Your task to perform on an android device: Go to Reddit.com Image 0: 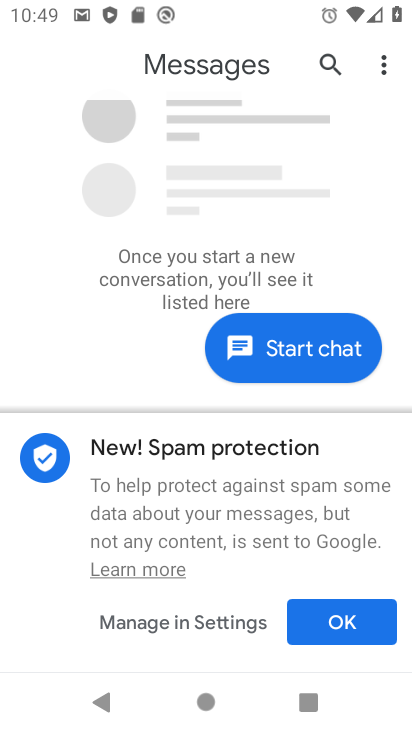
Step 0: press home button
Your task to perform on an android device: Go to Reddit.com Image 1: 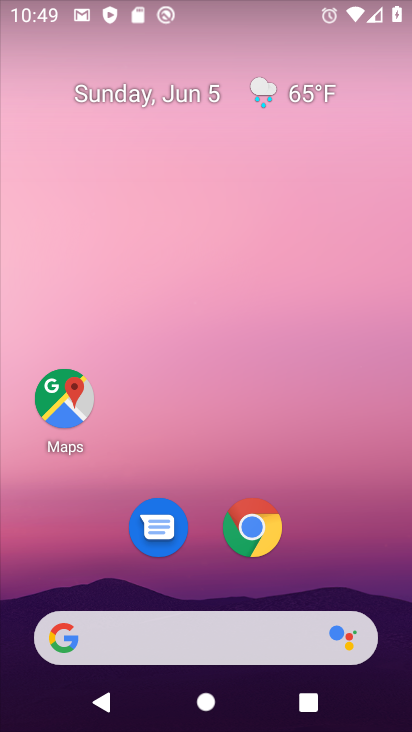
Step 1: click (193, 636)
Your task to perform on an android device: Go to Reddit.com Image 2: 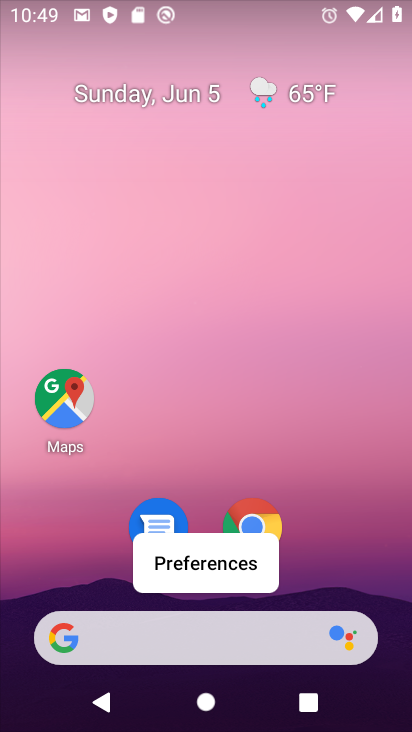
Step 2: click (144, 641)
Your task to perform on an android device: Go to Reddit.com Image 3: 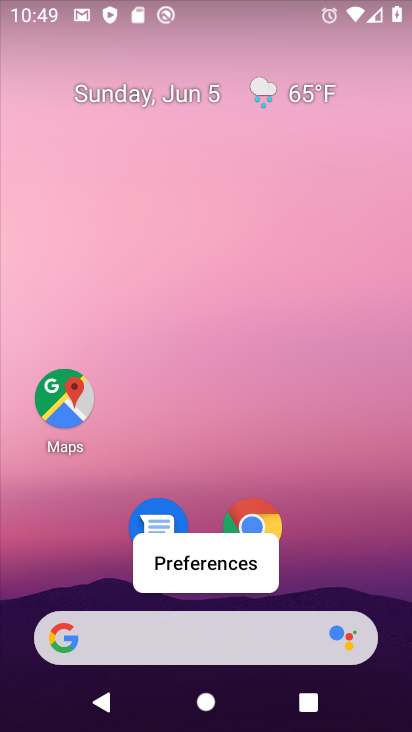
Step 3: click (238, 638)
Your task to perform on an android device: Go to Reddit.com Image 4: 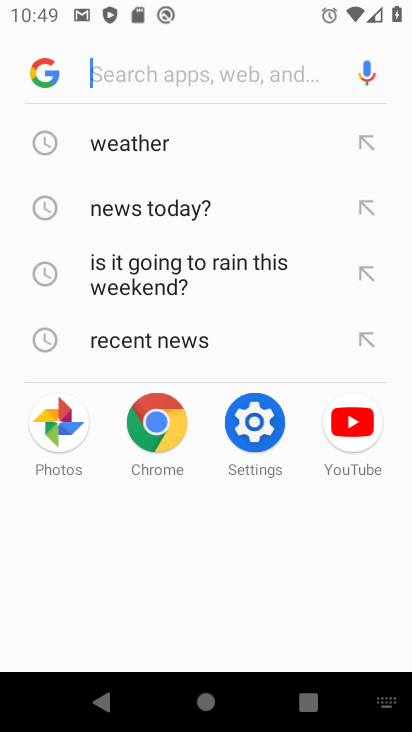
Step 4: click (156, 70)
Your task to perform on an android device: Go to Reddit.com Image 5: 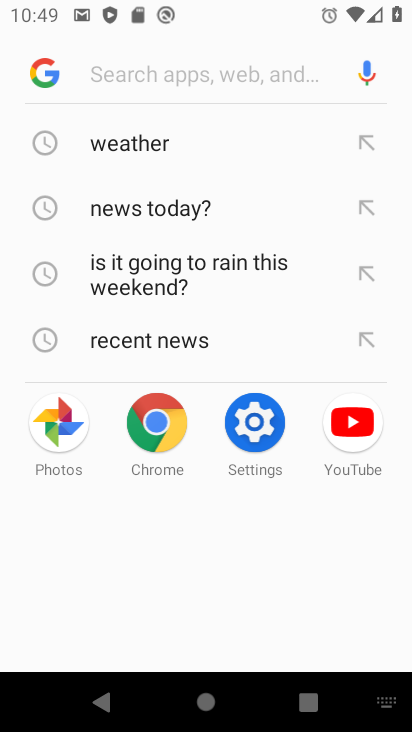
Step 5: type "Reddit.com"
Your task to perform on an android device: Go to Reddit.com Image 6: 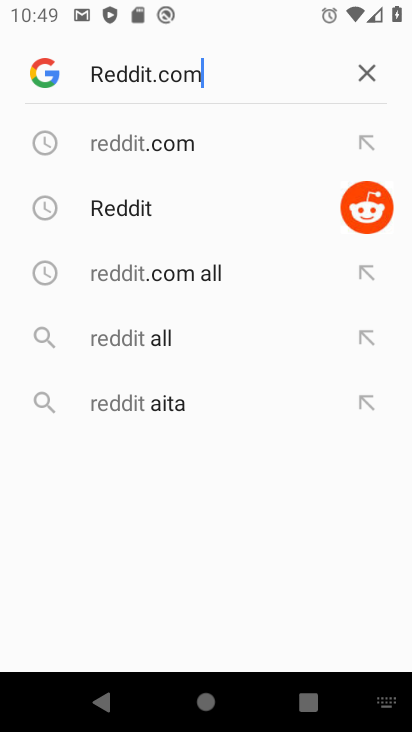
Step 6: type ""
Your task to perform on an android device: Go to Reddit.com Image 7: 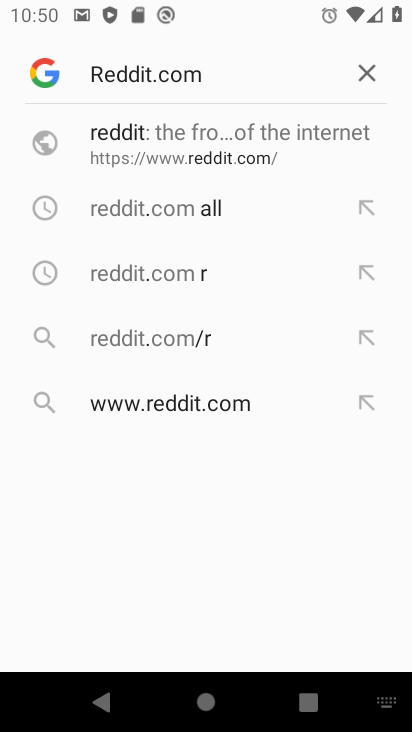
Step 7: click (130, 408)
Your task to perform on an android device: Go to Reddit.com Image 8: 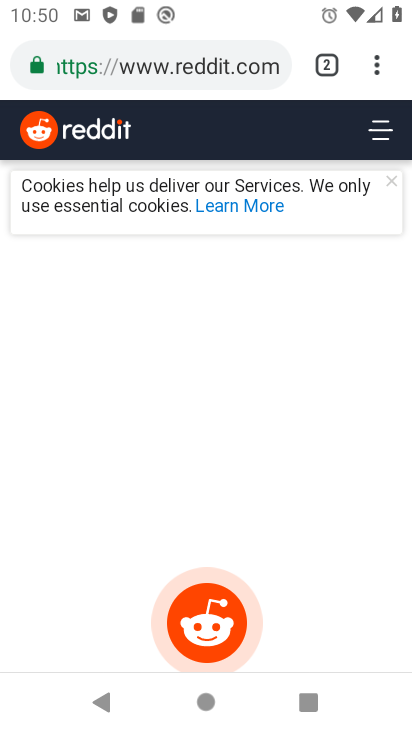
Step 8: task complete